Your task to perform on an android device: delete browsing data in the chrome app Image 0: 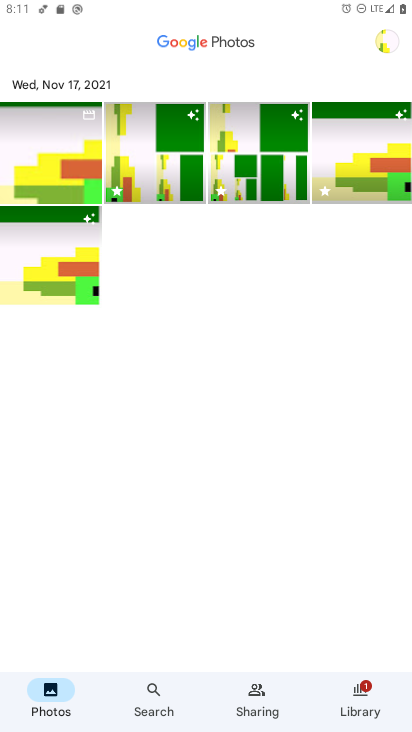
Step 0: press home button
Your task to perform on an android device: delete browsing data in the chrome app Image 1: 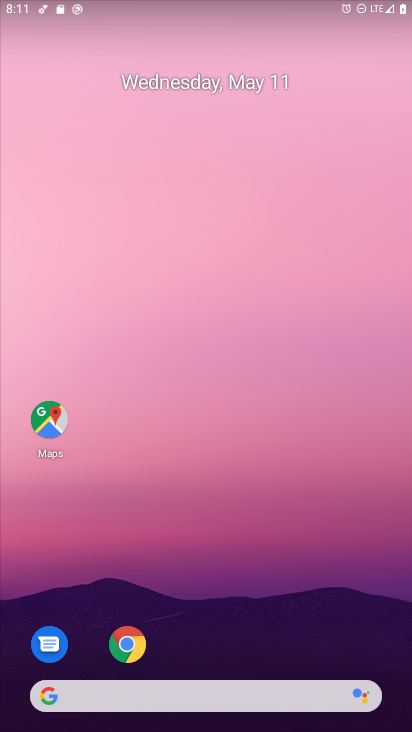
Step 1: click (132, 640)
Your task to perform on an android device: delete browsing data in the chrome app Image 2: 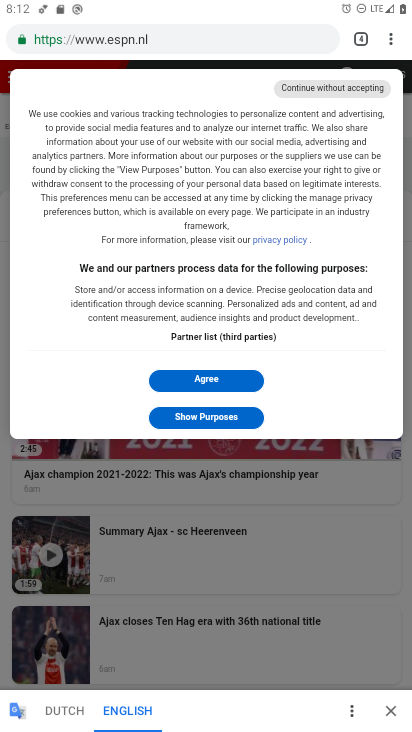
Step 2: click (393, 31)
Your task to perform on an android device: delete browsing data in the chrome app Image 3: 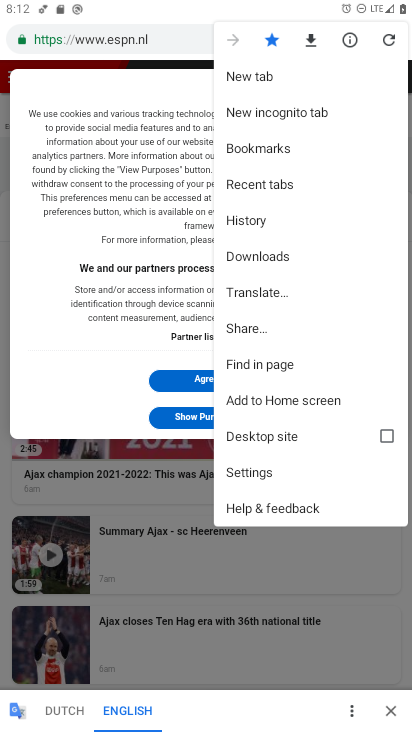
Step 3: click (251, 218)
Your task to perform on an android device: delete browsing data in the chrome app Image 4: 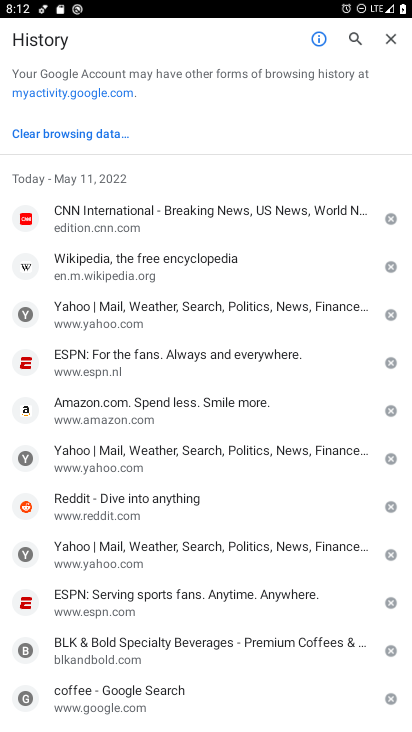
Step 4: click (89, 126)
Your task to perform on an android device: delete browsing data in the chrome app Image 5: 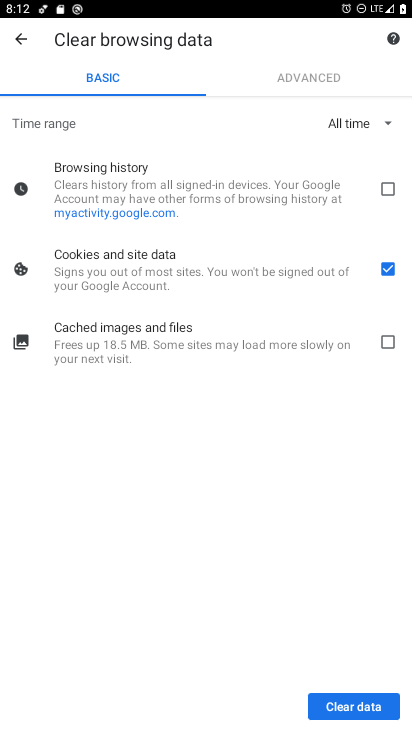
Step 5: click (391, 191)
Your task to perform on an android device: delete browsing data in the chrome app Image 6: 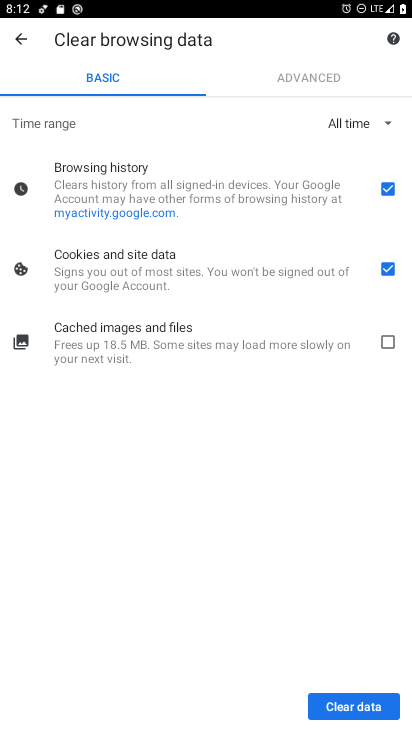
Step 6: click (387, 273)
Your task to perform on an android device: delete browsing data in the chrome app Image 7: 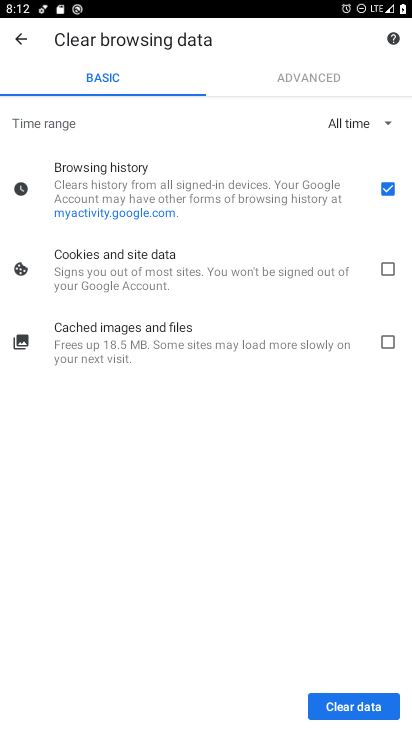
Step 7: click (331, 705)
Your task to perform on an android device: delete browsing data in the chrome app Image 8: 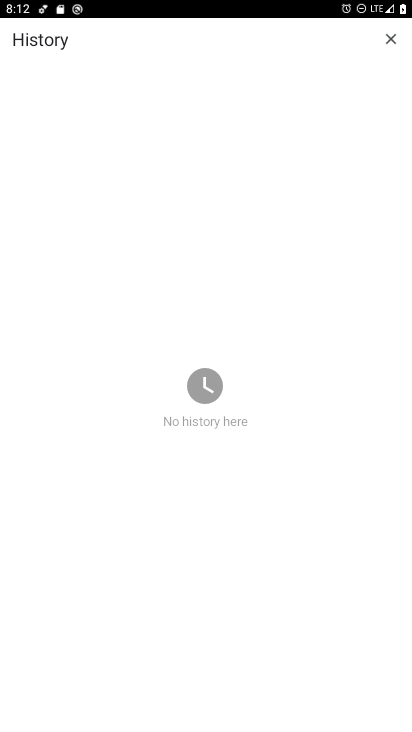
Step 8: task complete